Your task to perform on an android device: Turn on the flashlight Image 0: 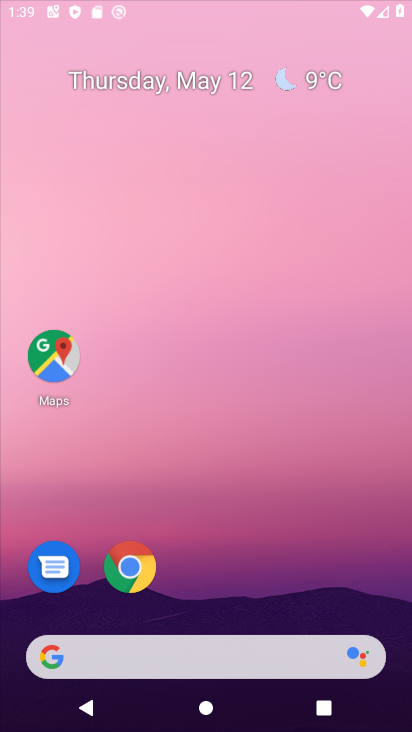
Step 0: click (263, 227)
Your task to perform on an android device: Turn on the flashlight Image 1: 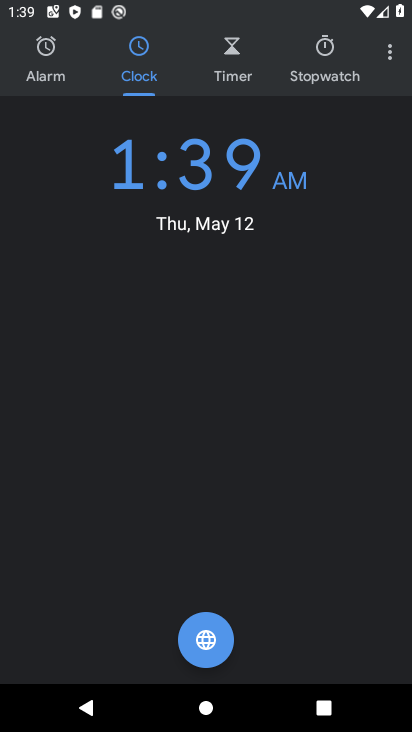
Step 1: press home button
Your task to perform on an android device: Turn on the flashlight Image 2: 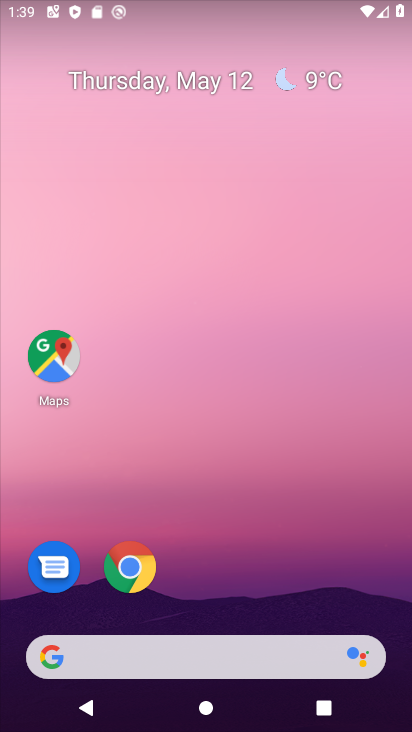
Step 2: drag from (229, 438) to (229, 163)
Your task to perform on an android device: Turn on the flashlight Image 3: 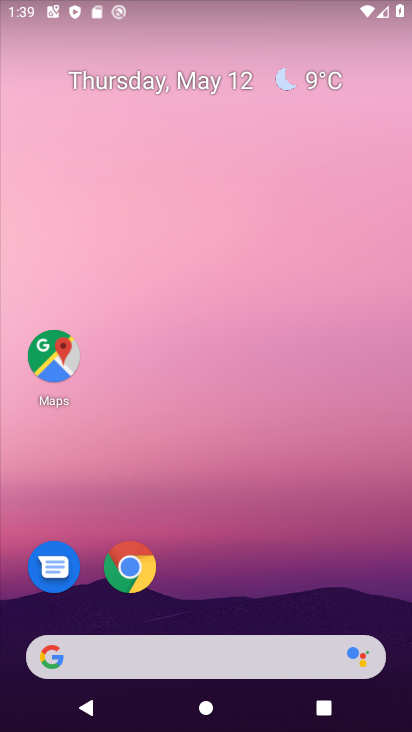
Step 3: drag from (214, 601) to (211, 23)
Your task to perform on an android device: Turn on the flashlight Image 4: 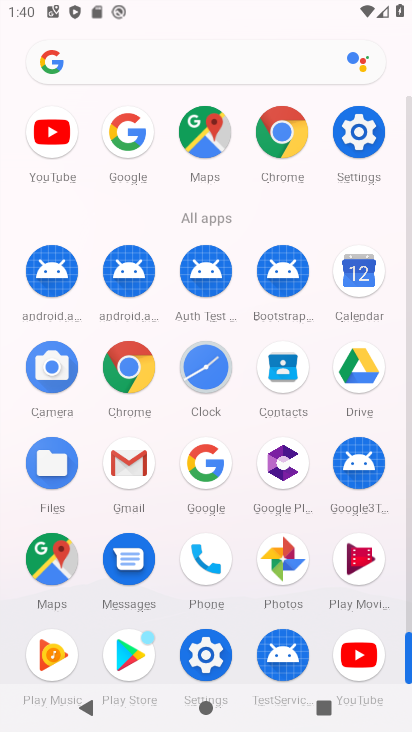
Step 4: click (359, 177)
Your task to perform on an android device: Turn on the flashlight Image 5: 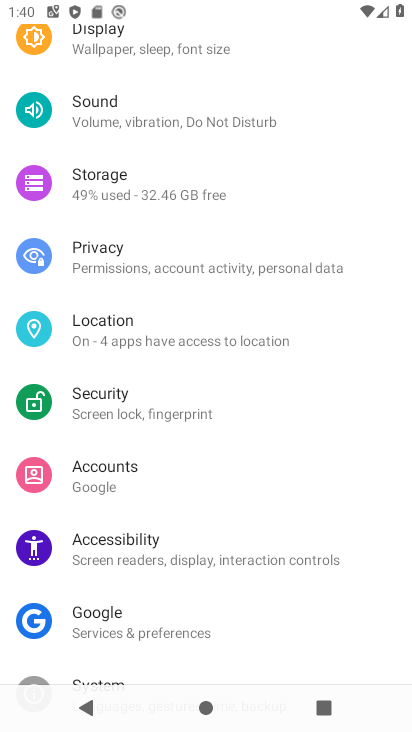
Step 5: task complete